Your task to perform on an android device: Open Yahoo.com Image 0: 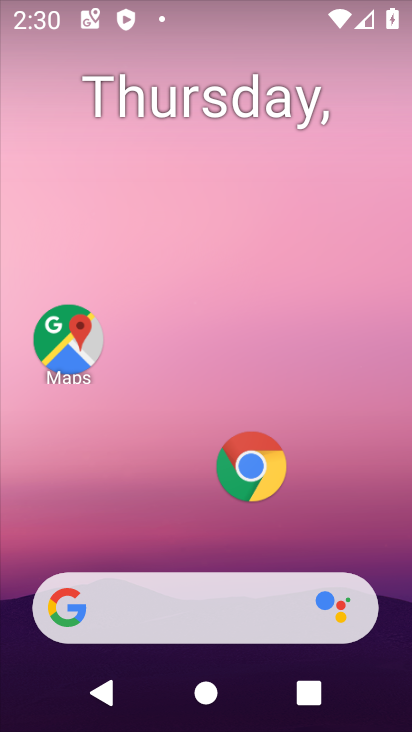
Step 0: click (252, 475)
Your task to perform on an android device: Open Yahoo.com Image 1: 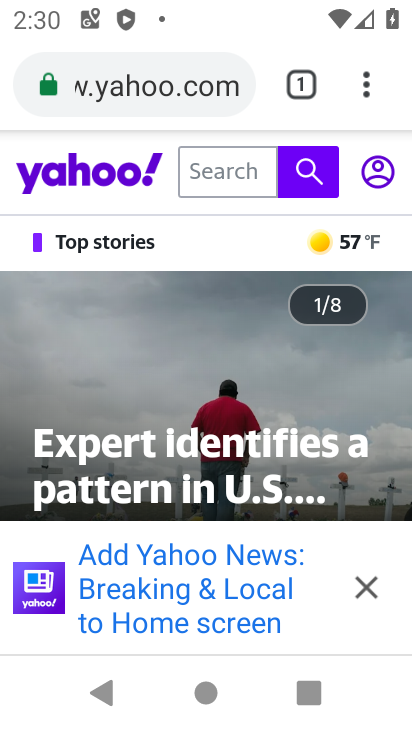
Step 1: task complete